Your task to perform on an android device: open a new tab in the chrome app Image 0: 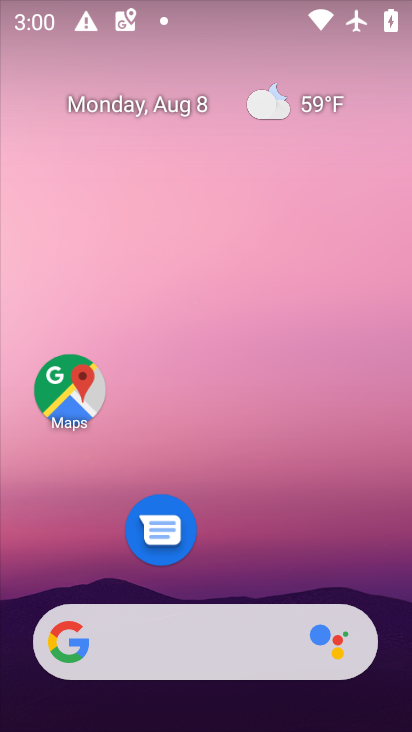
Step 0: drag from (219, 562) to (206, 42)
Your task to perform on an android device: open a new tab in the chrome app Image 1: 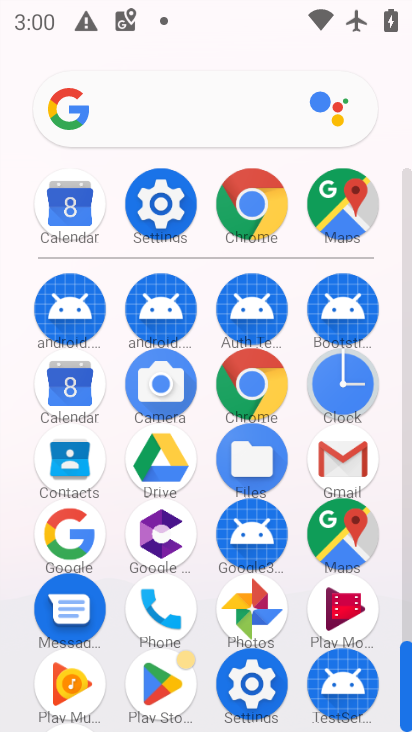
Step 1: click (250, 373)
Your task to perform on an android device: open a new tab in the chrome app Image 2: 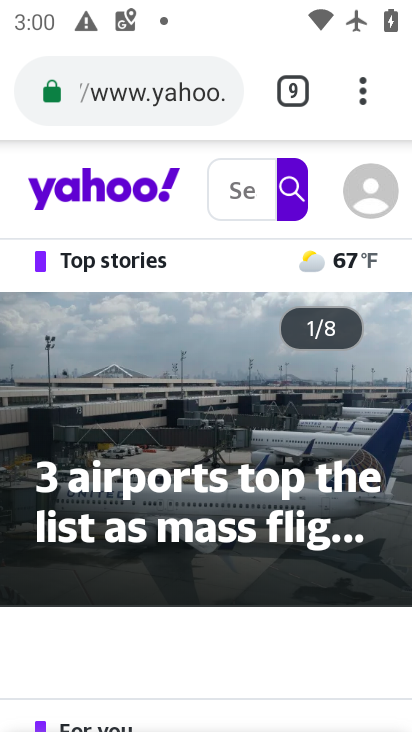
Step 2: click (365, 99)
Your task to perform on an android device: open a new tab in the chrome app Image 3: 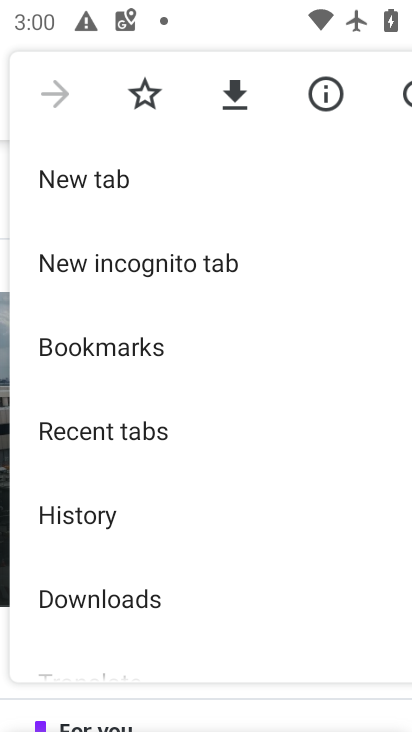
Step 3: click (91, 183)
Your task to perform on an android device: open a new tab in the chrome app Image 4: 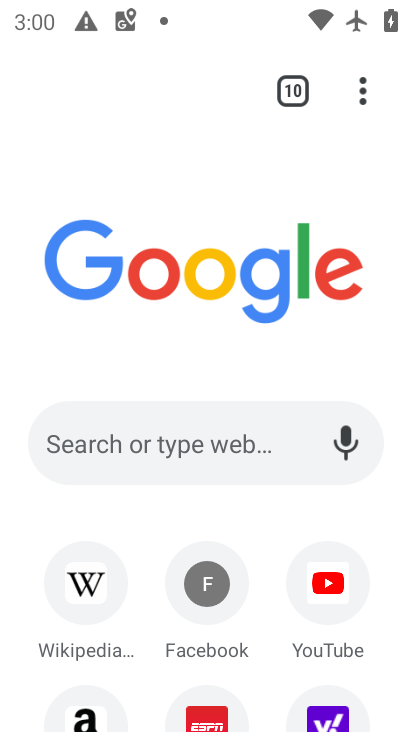
Step 4: task complete